Your task to perform on an android device: see tabs open on other devices in the chrome app Image 0: 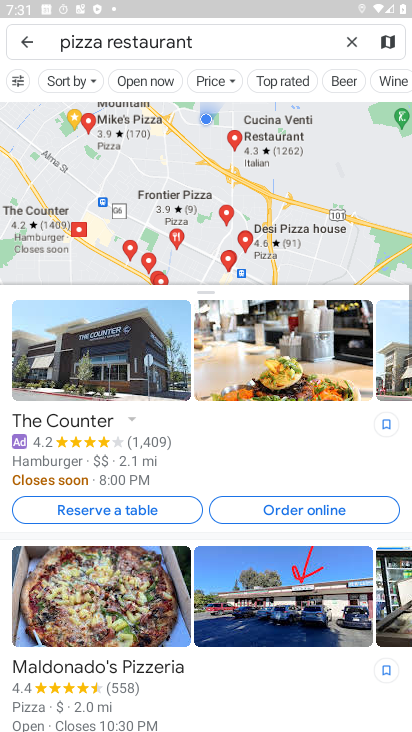
Step 0: press home button
Your task to perform on an android device: see tabs open on other devices in the chrome app Image 1: 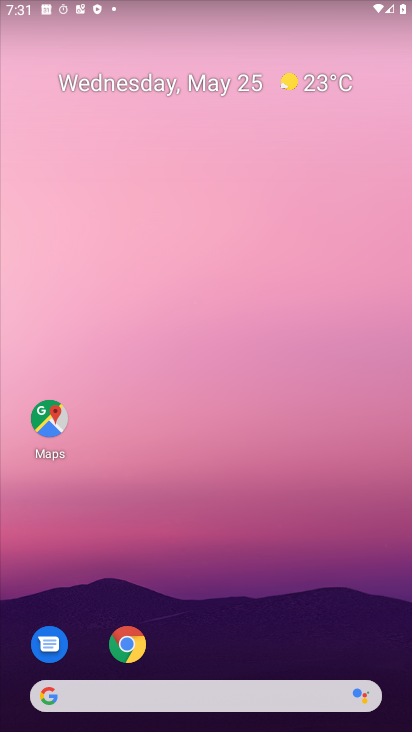
Step 1: drag from (265, 622) to (195, 123)
Your task to perform on an android device: see tabs open on other devices in the chrome app Image 2: 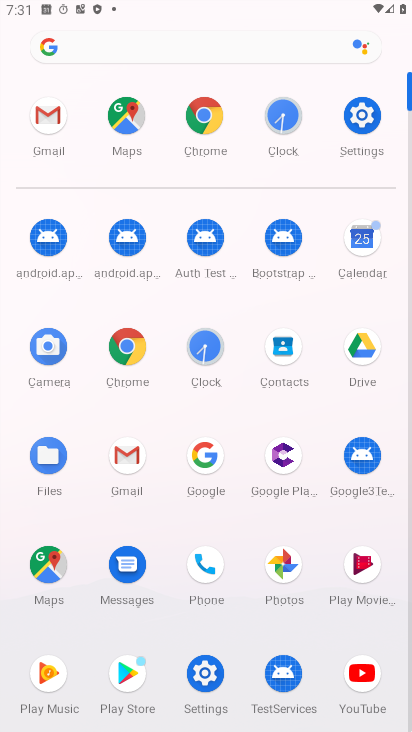
Step 2: click (131, 363)
Your task to perform on an android device: see tabs open on other devices in the chrome app Image 3: 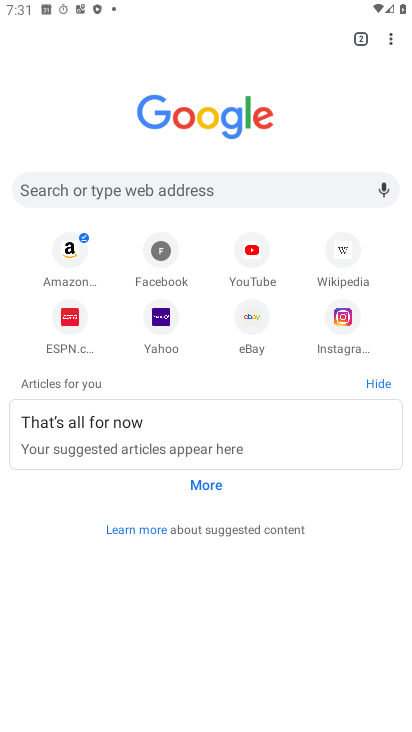
Step 3: click (363, 33)
Your task to perform on an android device: see tabs open on other devices in the chrome app Image 4: 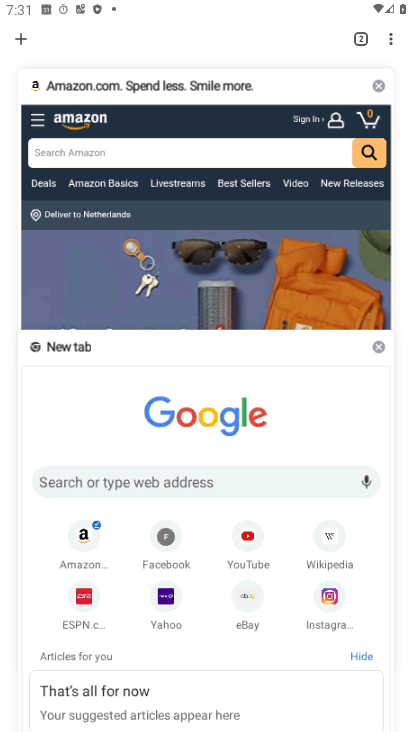
Step 4: click (24, 44)
Your task to perform on an android device: see tabs open on other devices in the chrome app Image 5: 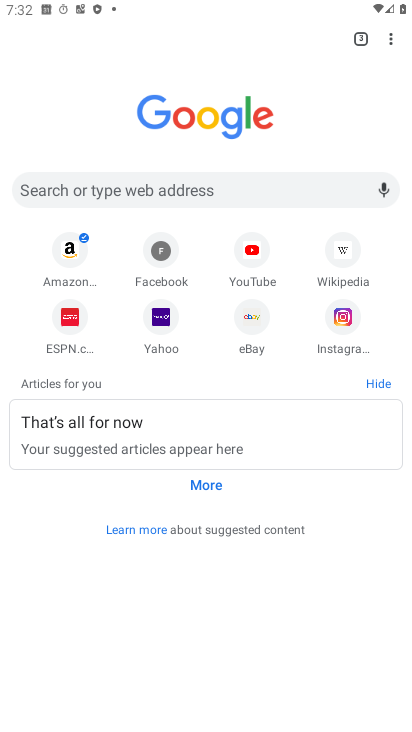
Step 5: task complete